Your task to perform on an android device: turn off sleep mode Image 0: 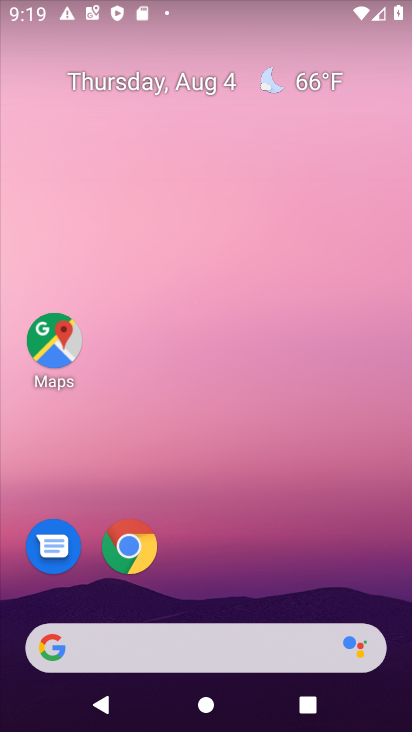
Step 0: press home button
Your task to perform on an android device: turn off sleep mode Image 1: 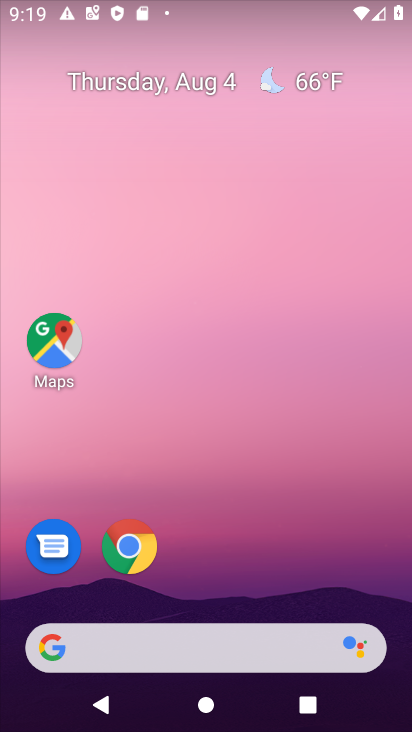
Step 1: drag from (248, 559) to (260, 66)
Your task to perform on an android device: turn off sleep mode Image 2: 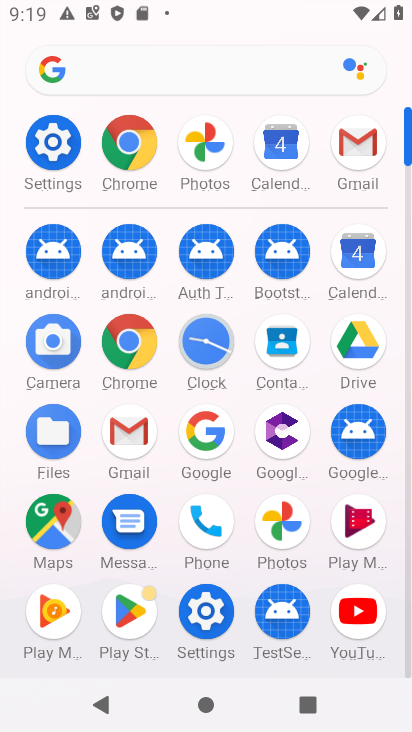
Step 2: click (64, 131)
Your task to perform on an android device: turn off sleep mode Image 3: 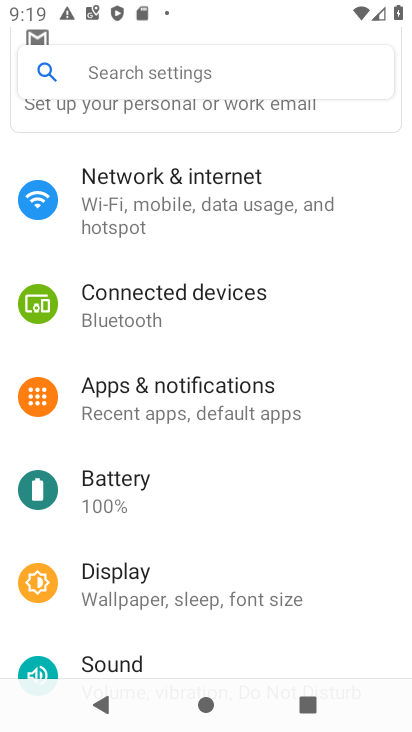
Step 3: click (123, 581)
Your task to perform on an android device: turn off sleep mode Image 4: 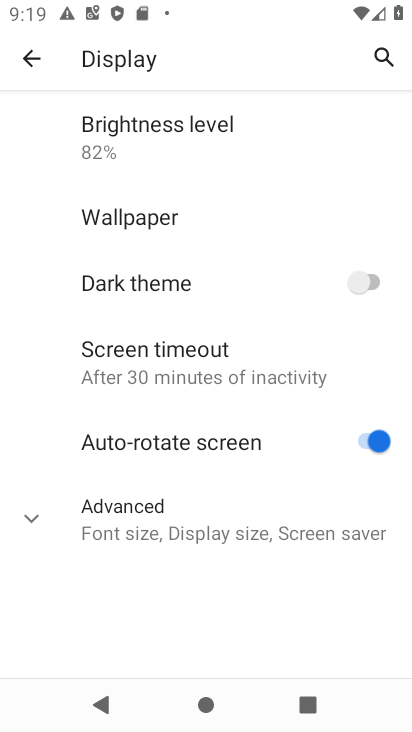
Step 4: task complete